Your task to perform on an android device: What's the weather? Image 0: 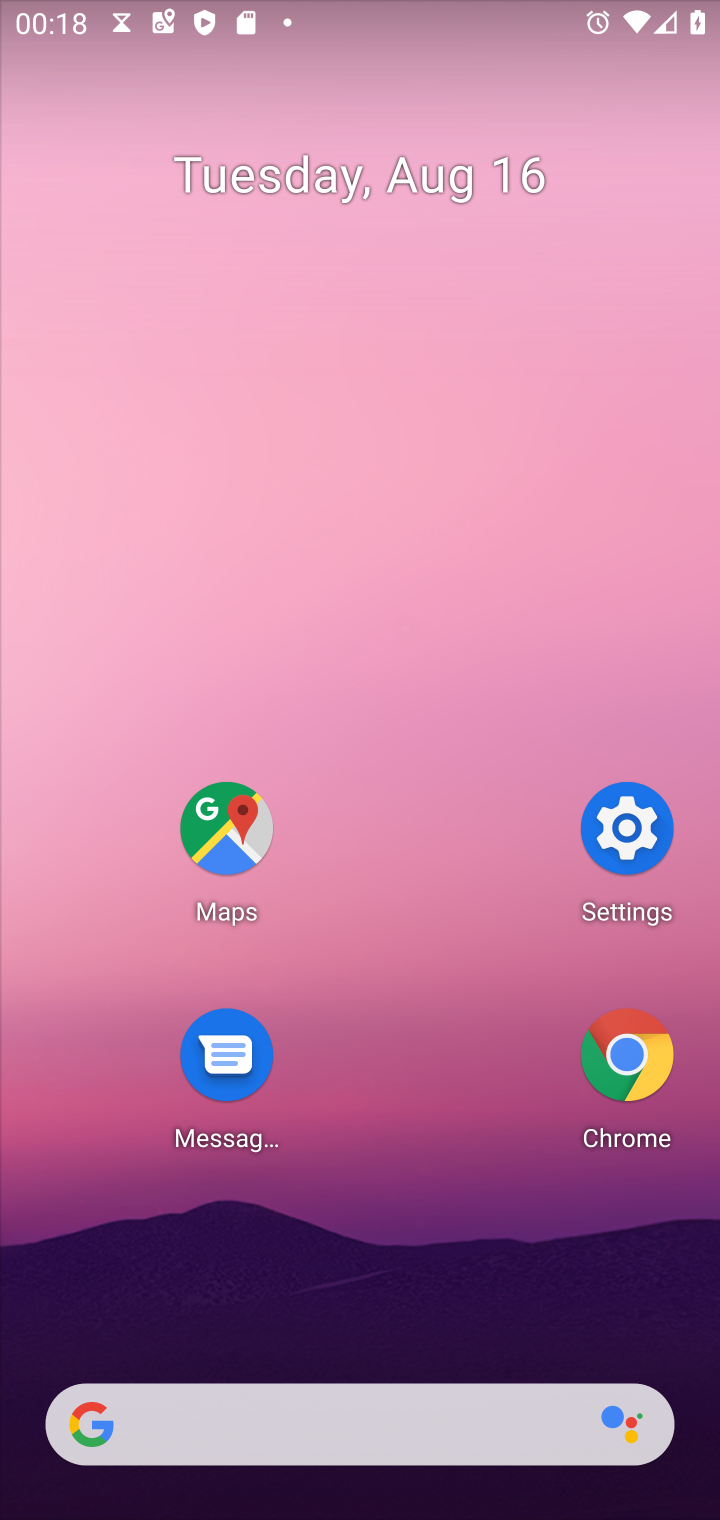
Step 0: press home button
Your task to perform on an android device: What's the weather? Image 1: 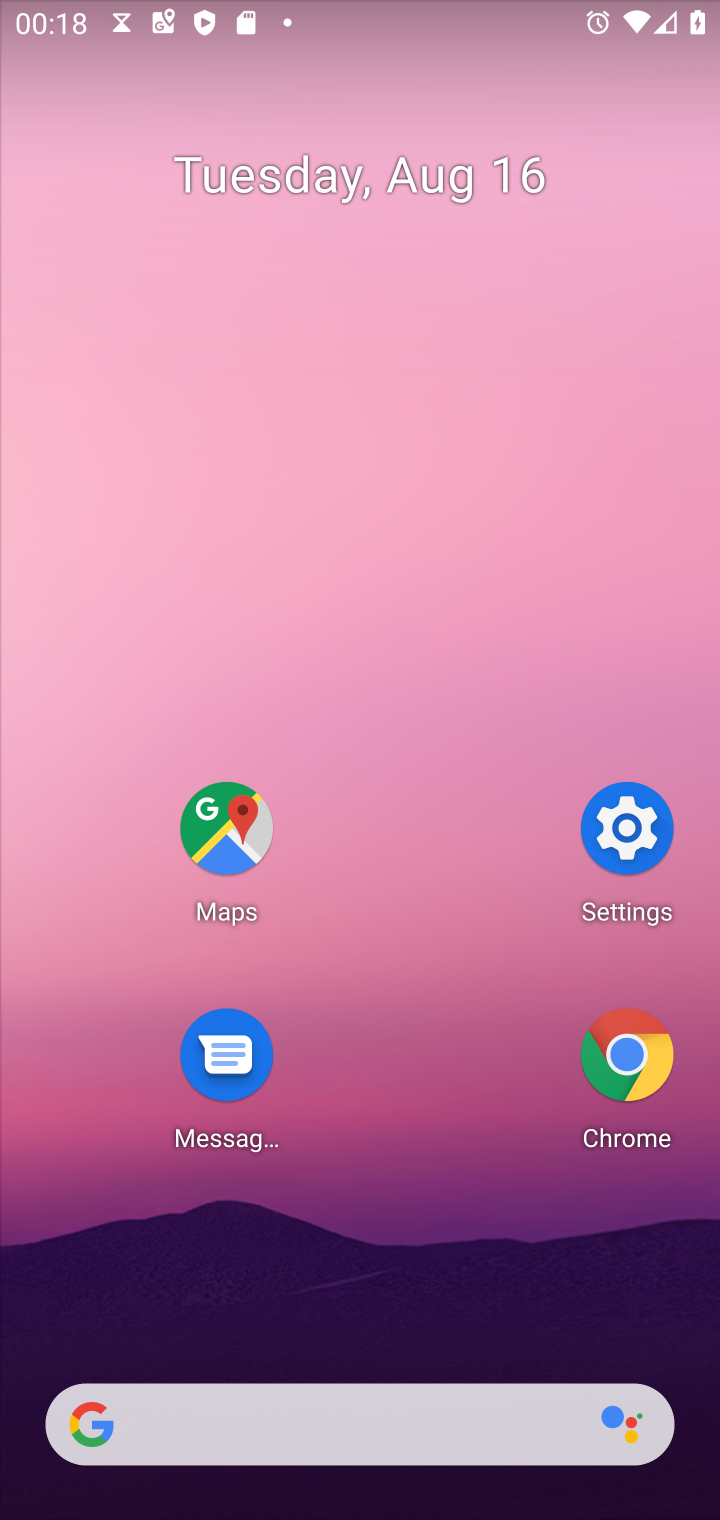
Step 1: click (222, 1416)
Your task to perform on an android device: What's the weather? Image 2: 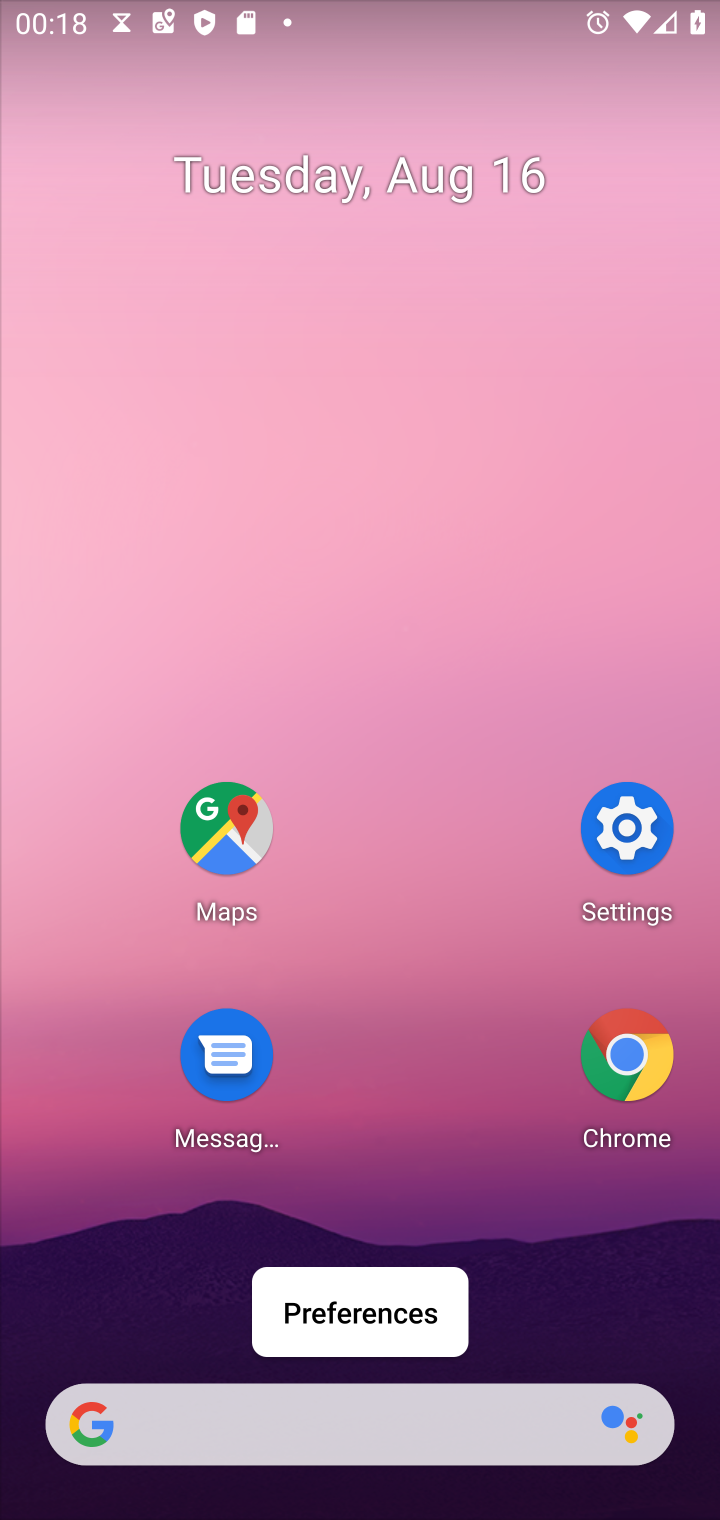
Step 2: click (239, 1418)
Your task to perform on an android device: What's the weather? Image 3: 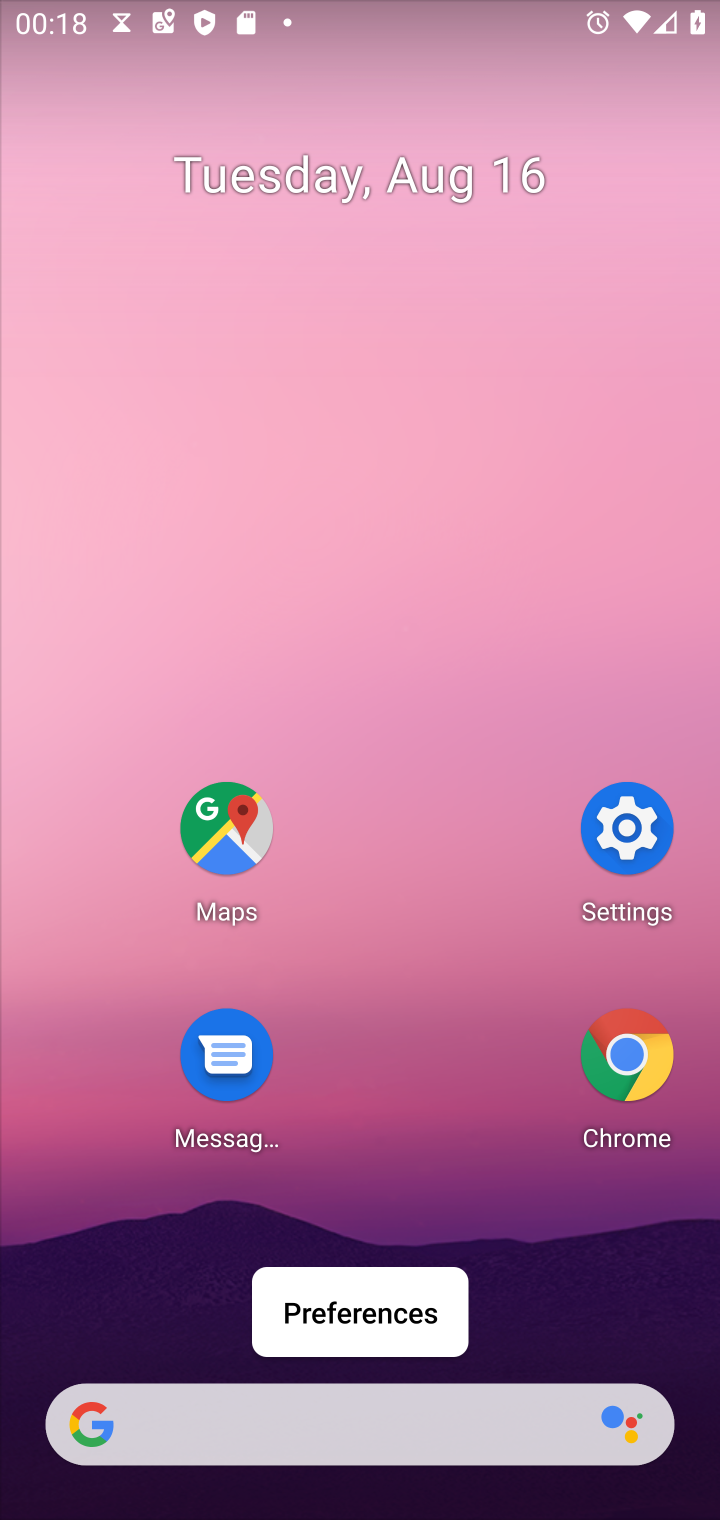
Step 3: click (239, 1431)
Your task to perform on an android device: What's the weather? Image 4: 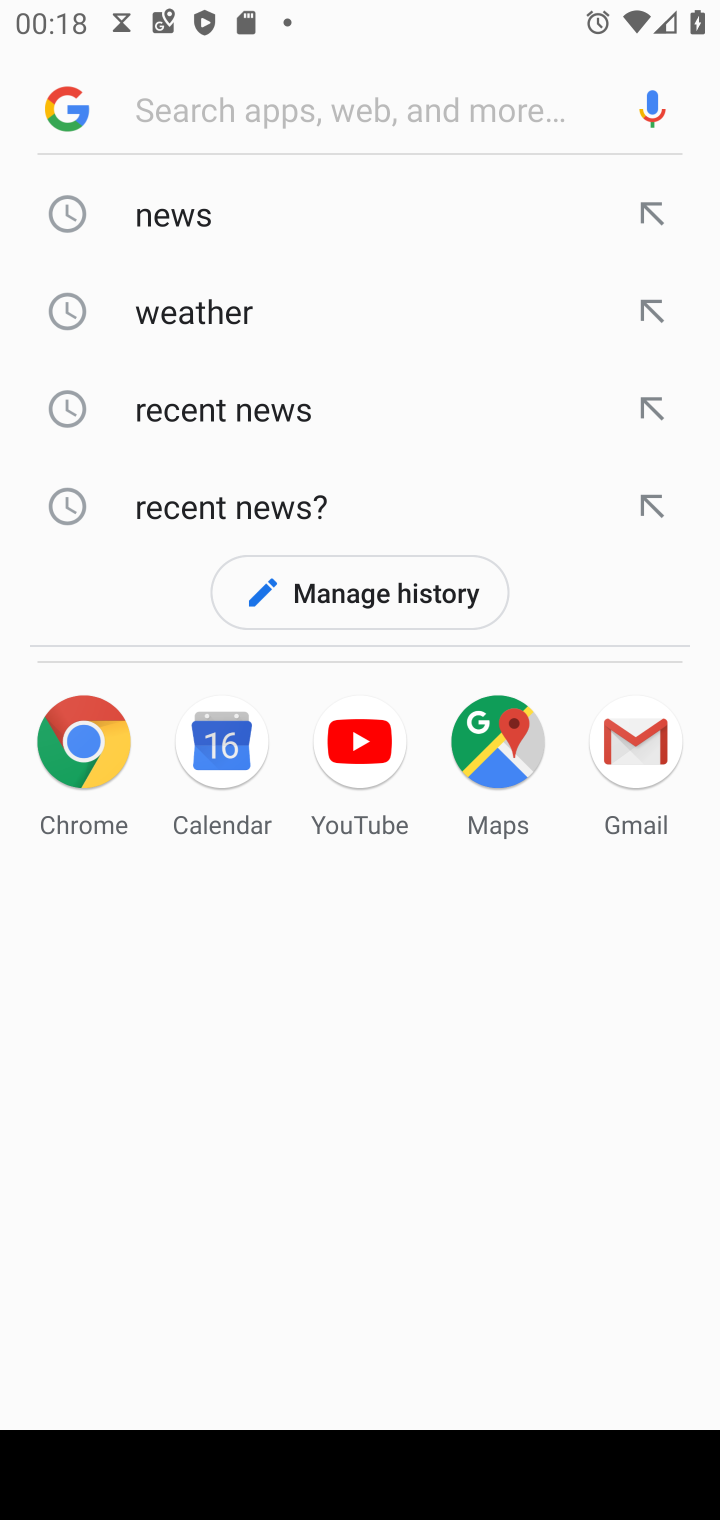
Step 4: click (166, 301)
Your task to perform on an android device: What's the weather? Image 5: 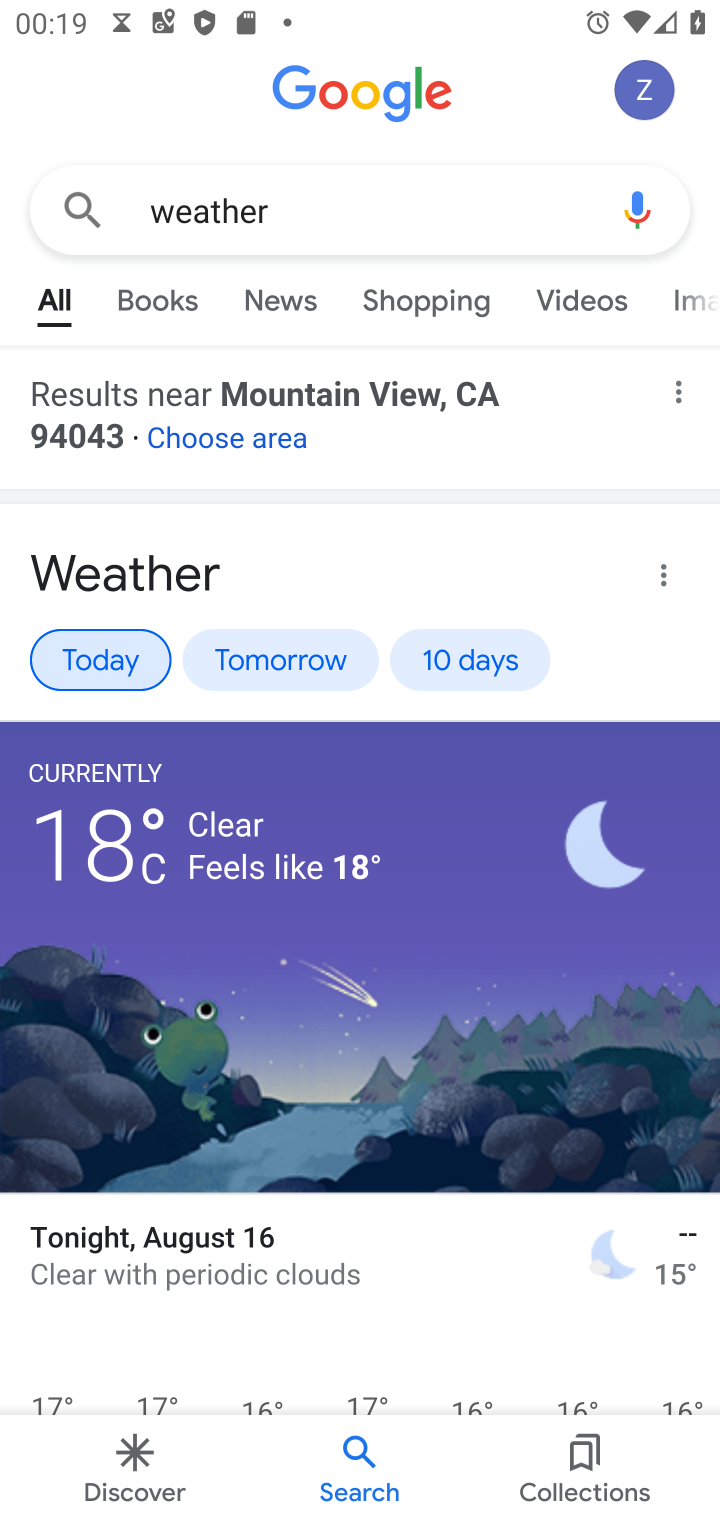
Step 5: task complete